Your task to perform on an android device: Set the phone to "Do not disturb". Image 0: 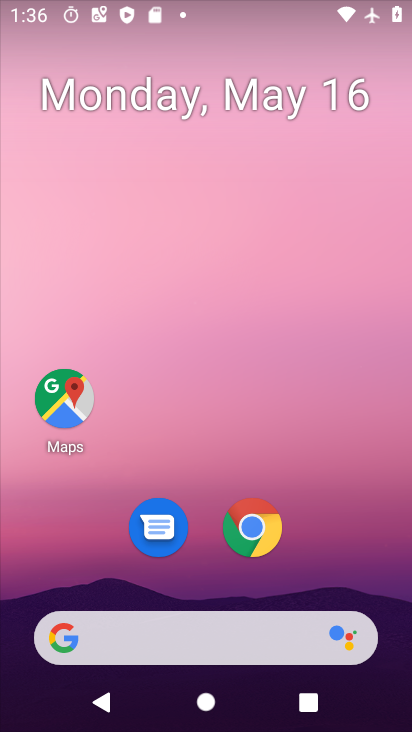
Step 0: press home button
Your task to perform on an android device: Set the phone to "Do not disturb". Image 1: 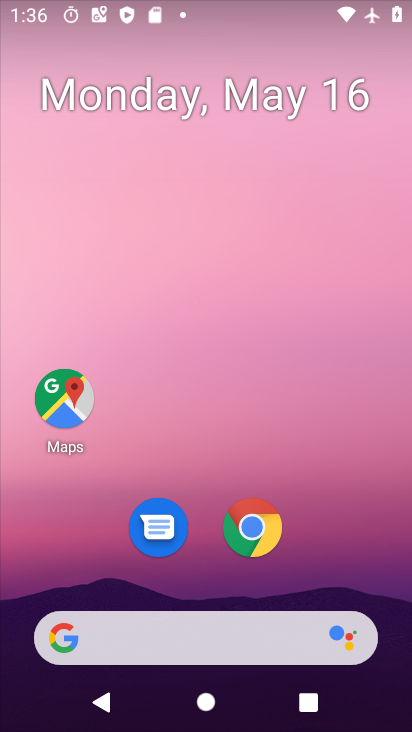
Step 1: drag from (197, 639) to (320, 147)
Your task to perform on an android device: Set the phone to "Do not disturb". Image 2: 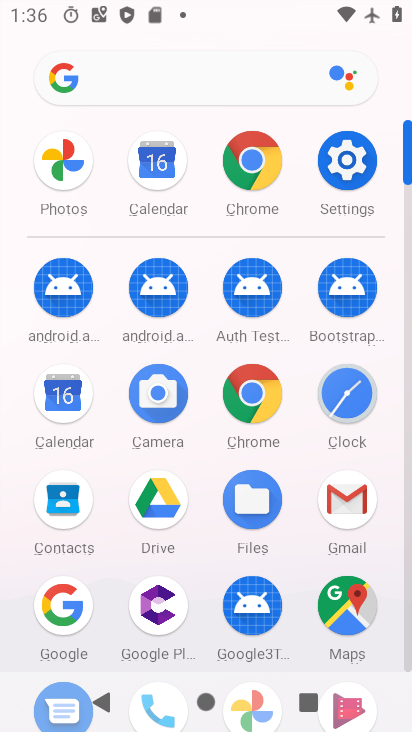
Step 2: click (352, 175)
Your task to perform on an android device: Set the phone to "Do not disturb". Image 3: 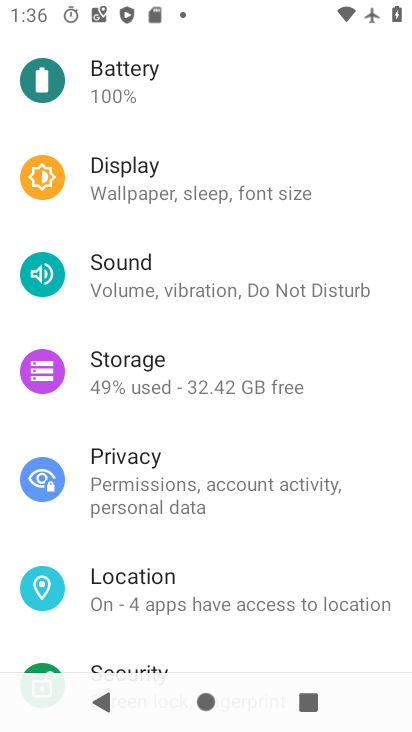
Step 3: click (171, 279)
Your task to perform on an android device: Set the phone to "Do not disturb". Image 4: 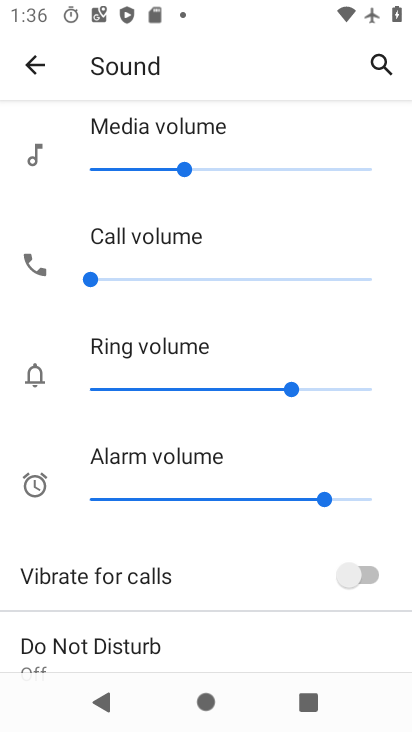
Step 4: drag from (168, 565) to (294, 266)
Your task to perform on an android device: Set the phone to "Do not disturb". Image 5: 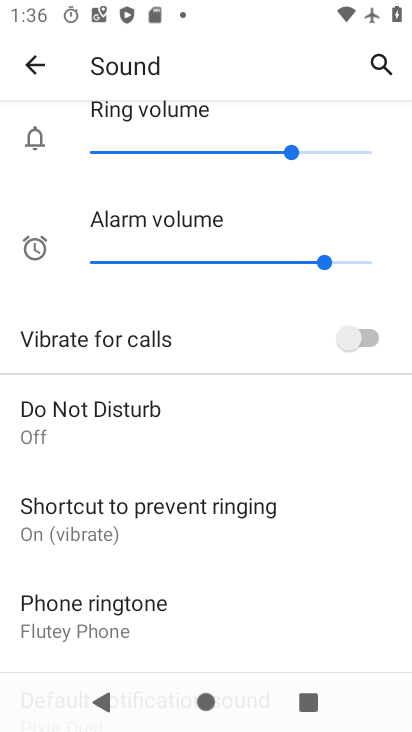
Step 5: click (90, 412)
Your task to perform on an android device: Set the phone to "Do not disturb". Image 6: 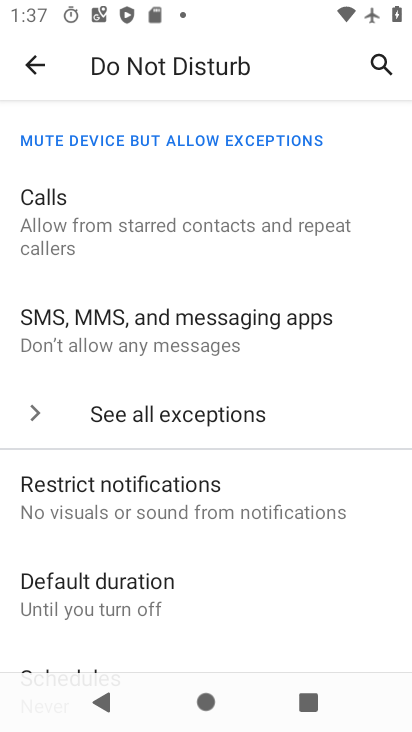
Step 6: drag from (179, 611) to (280, 231)
Your task to perform on an android device: Set the phone to "Do not disturb". Image 7: 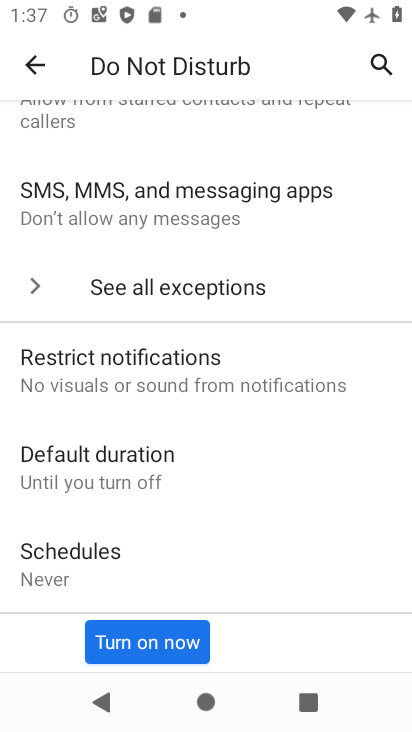
Step 7: click (140, 638)
Your task to perform on an android device: Set the phone to "Do not disturb". Image 8: 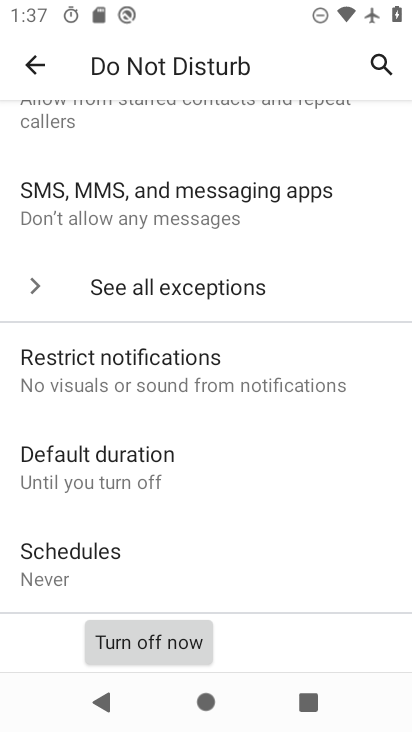
Step 8: task complete